Your task to perform on an android device: toggle airplane mode Image 0: 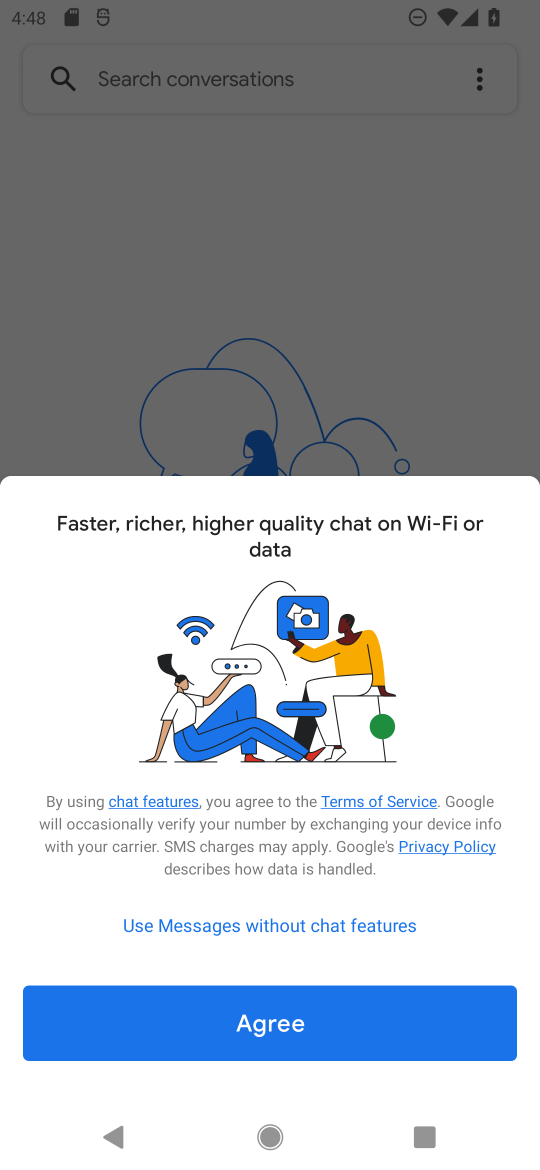
Step 0: press home button
Your task to perform on an android device: toggle airplane mode Image 1: 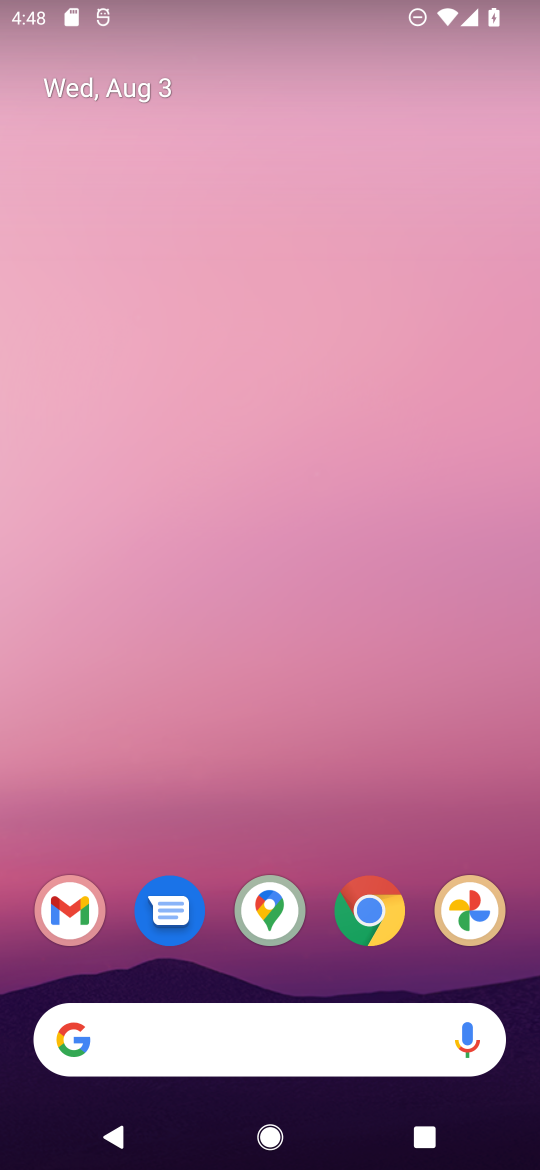
Step 1: drag from (24, 1155) to (108, 364)
Your task to perform on an android device: toggle airplane mode Image 2: 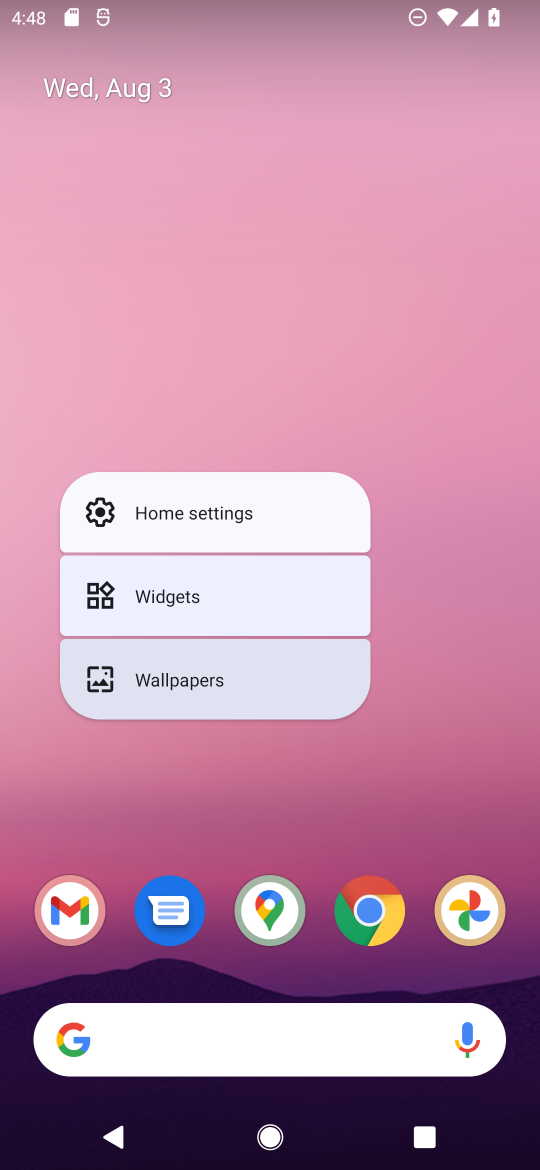
Step 2: drag from (52, 1131) to (263, 0)
Your task to perform on an android device: toggle airplane mode Image 3: 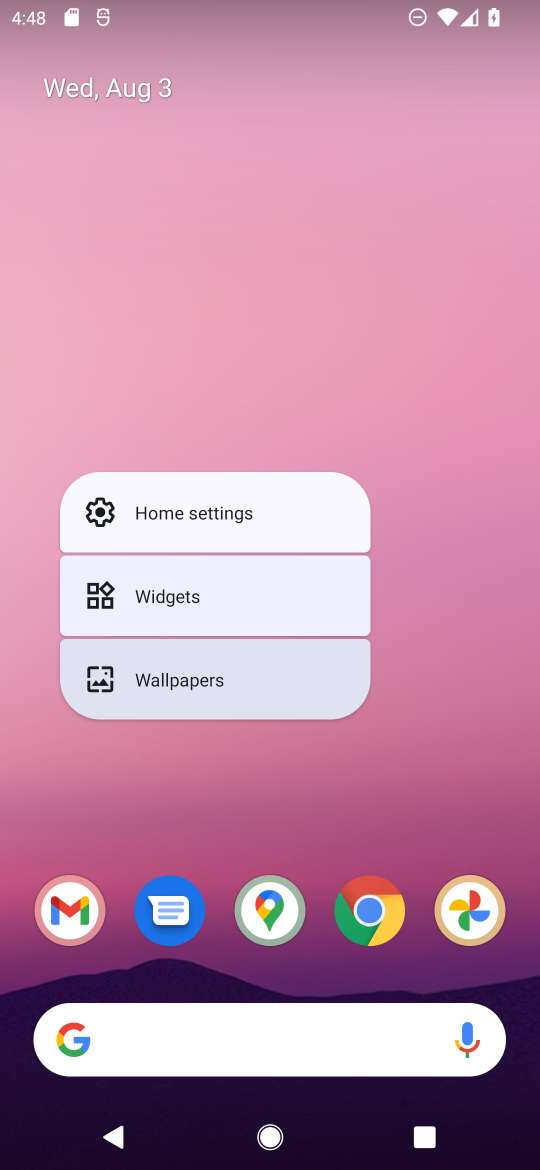
Step 3: drag from (193, 448) to (279, 13)
Your task to perform on an android device: toggle airplane mode Image 4: 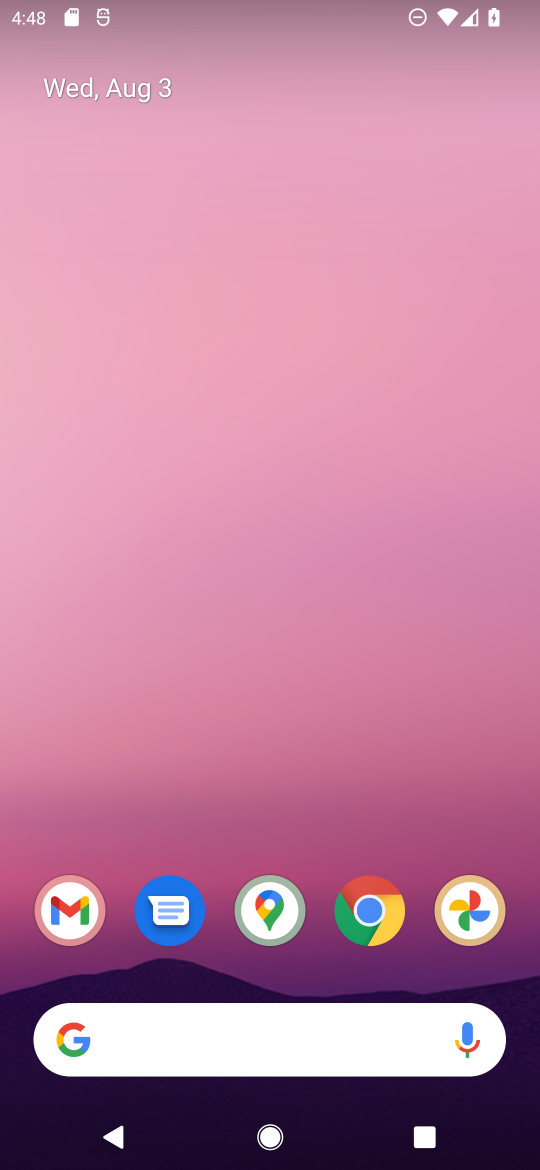
Step 4: drag from (110, 911) to (334, 10)
Your task to perform on an android device: toggle airplane mode Image 5: 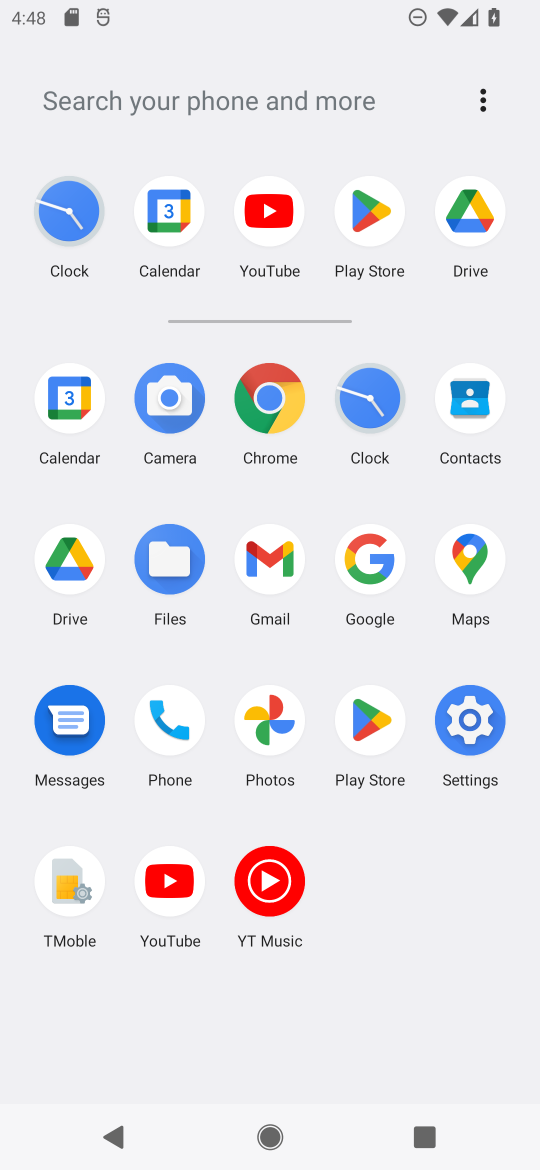
Step 5: click (469, 727)
Your task to perform on an android device: toggle airplane mode Image 6: 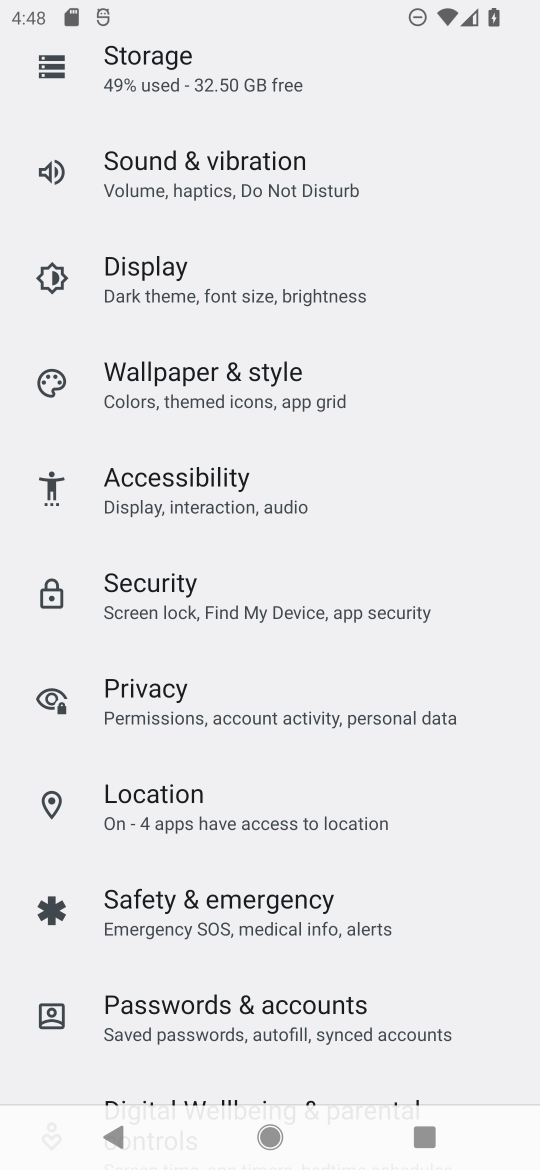
Step 6: drag from (315, 113) to (221, 1130)
Your task to perform on an android device: toggle airplane mode Image 7: 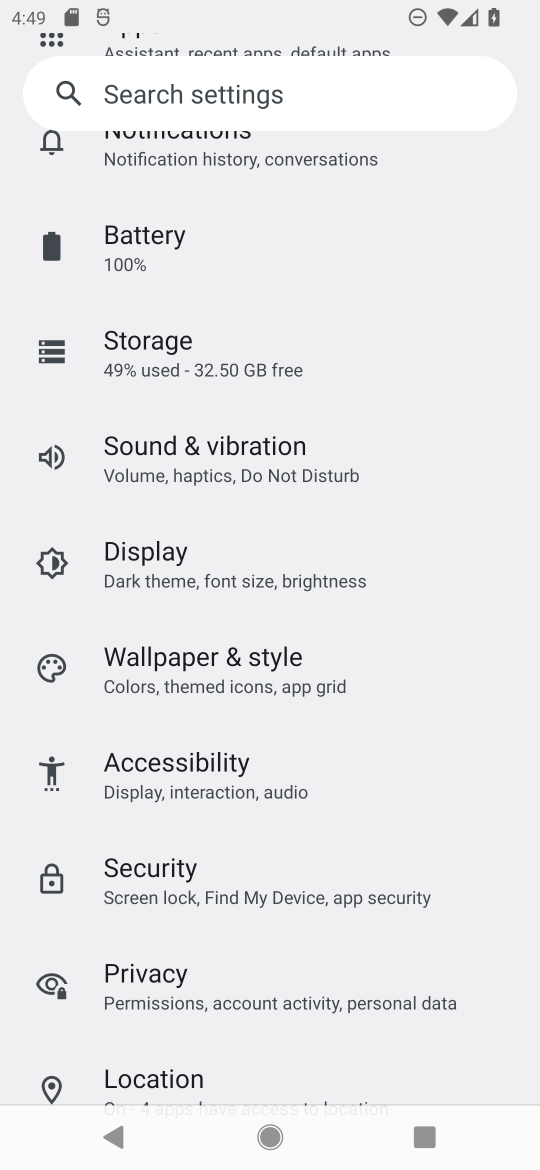
Step 7: drag from (341, 614) to (260, 1111)
Your task to perform on an android device: toggle airplane mode Image 8: 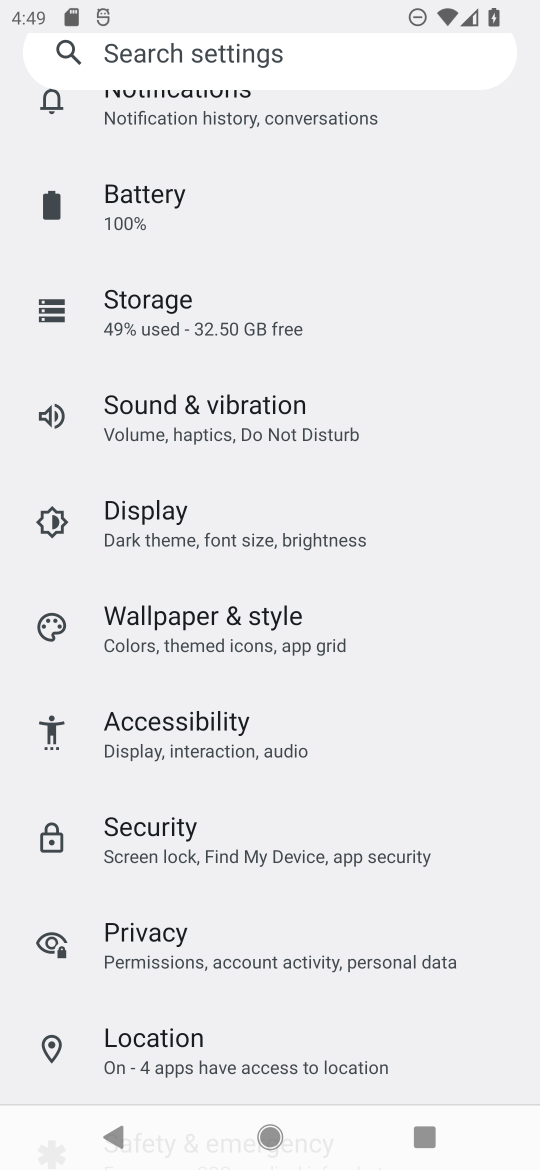
Step 8: drag from (361, 136) to (335, 823)
Your task to perform on an android device: toggle airplane mode Image 9: 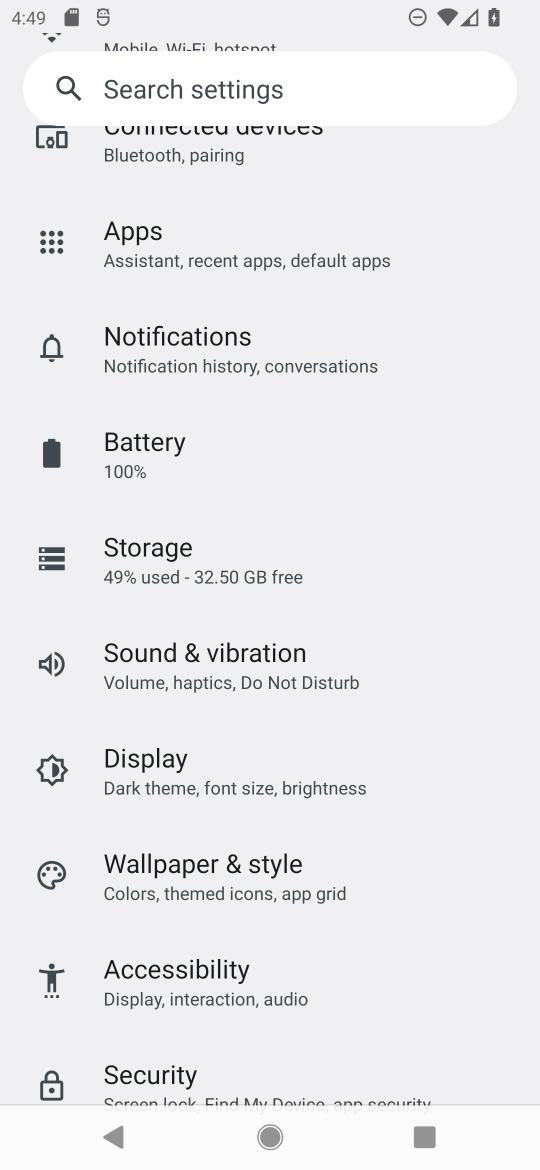
Step 9: drag from (301, 384) to (228, 1132)
Your task to perform on an android device: toggle airplane mode Image 10: 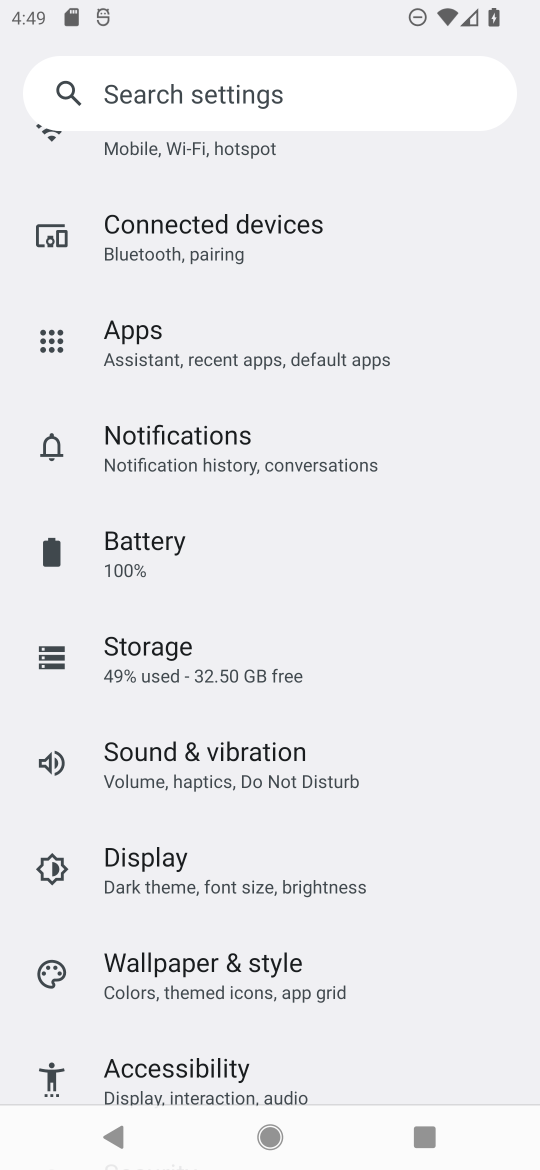
Step 10: drag from (279, 835) to (182, 1078)
Your task to perform on an android device: toggle airplane mode Image 11: 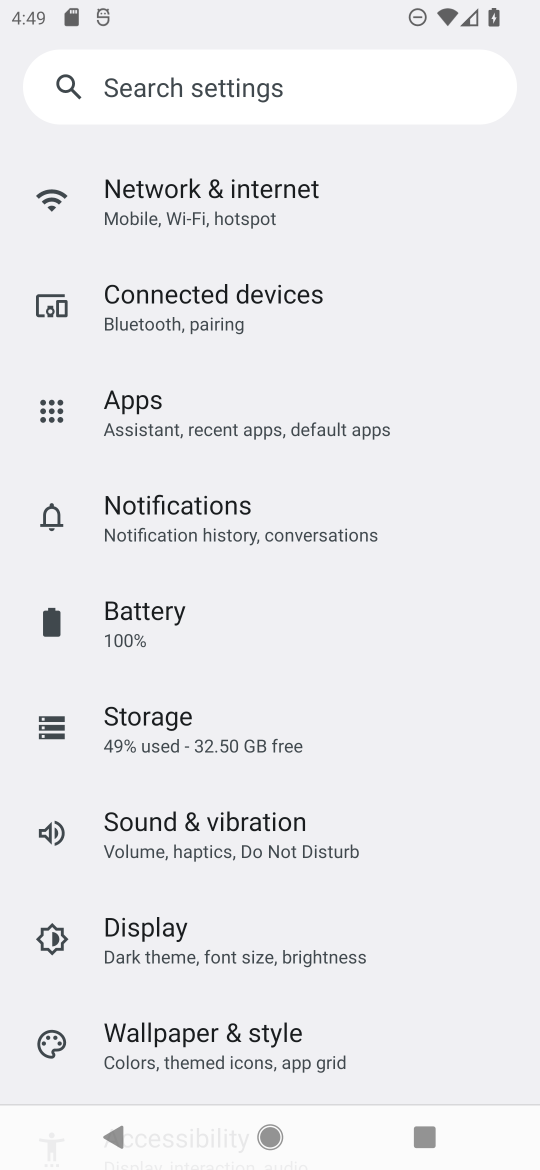
Step 11: drag from (326, 206) to (266, 869)
Your task to perform on an android device: toggle airplane mode Image 12: 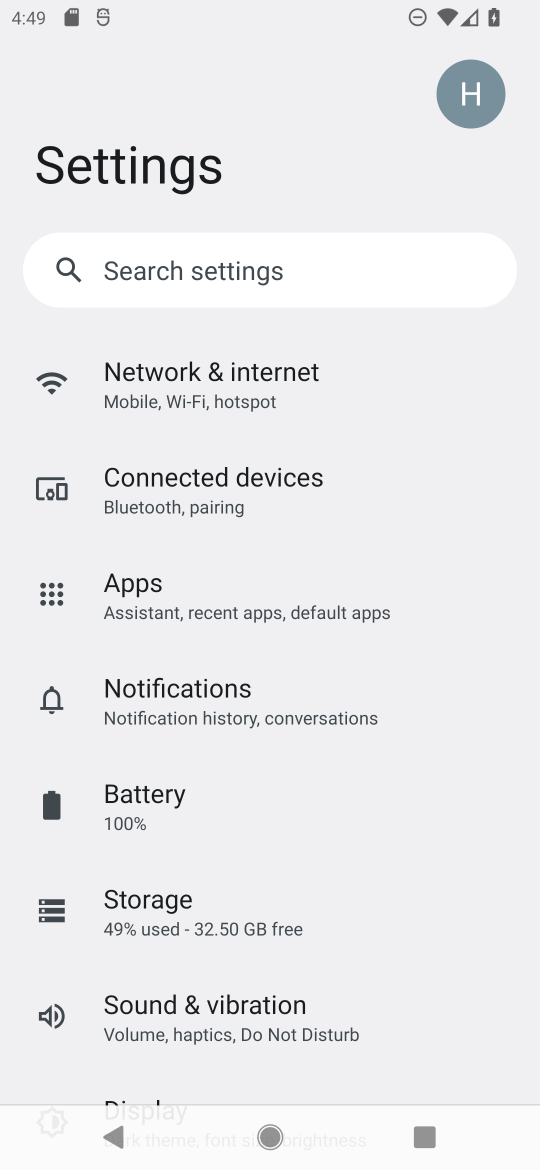
Step 12: click (183, 390)
Your task to perform on an android device: toggle airplane mode Image 13: 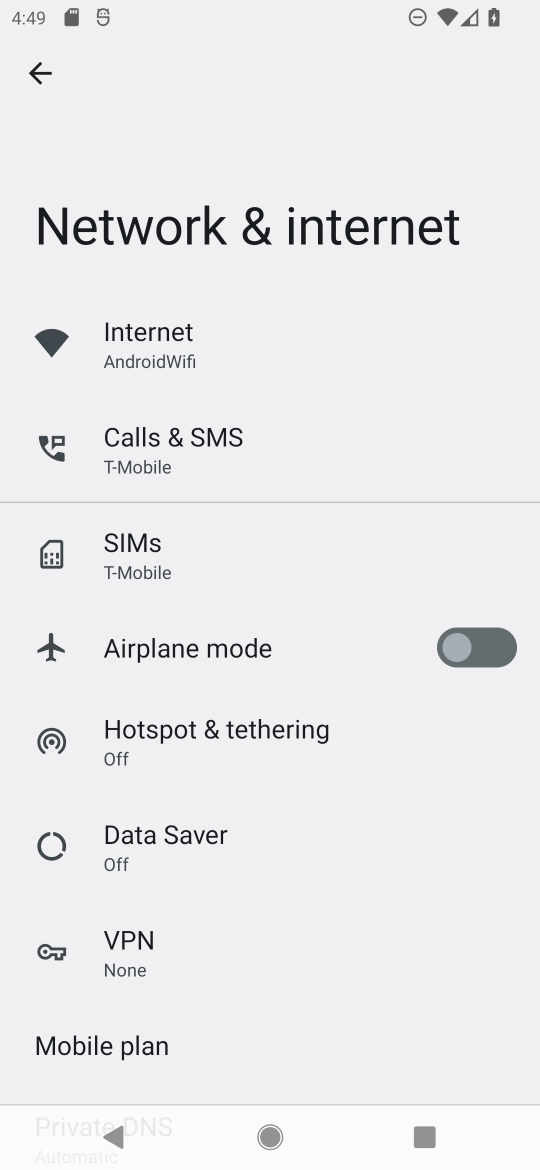
Step 13: click (456, 642)
Your task to perform on an android device: toggle airplane mode Image 14: 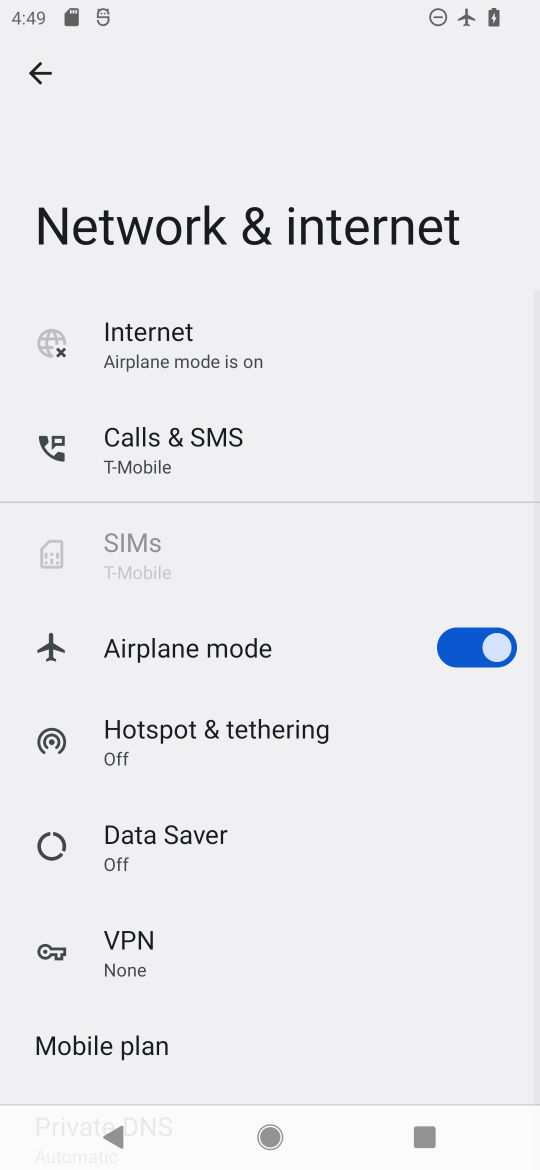
Step 14: task complete